Your task to perform on an android device: open sync settings in chrome Image 0: 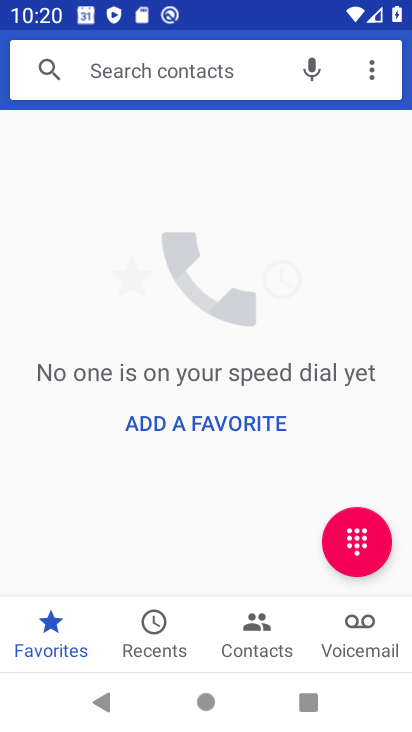
Step 0: press home button
Your task to perform on an android device: open sync settings in chrome Image 1: 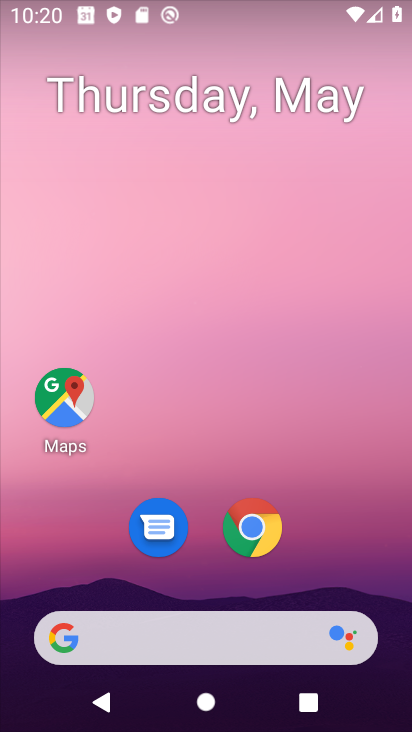
Step 1: click (251, 526)
Your task to perform on an android device: open sync settings in chrome Image 2: 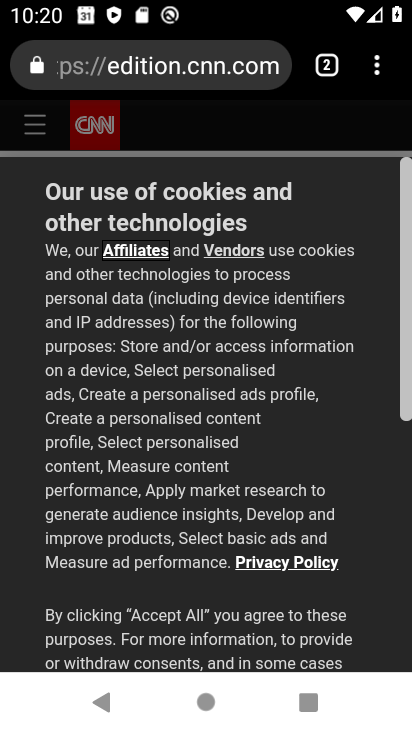
Step 2: click (380, 75)
Your task to perform on an android device: open sync settings in chrome Image 3: 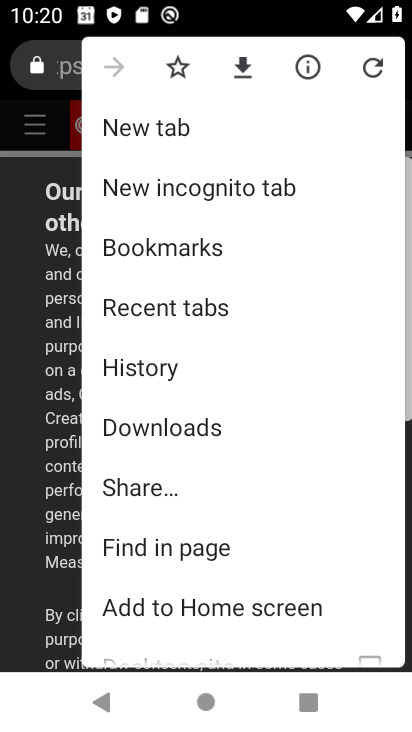
Step 3: drag from (183, 514) to (181, 308)
Your task to perform on an android device: open sync settings in chrome Image 4: 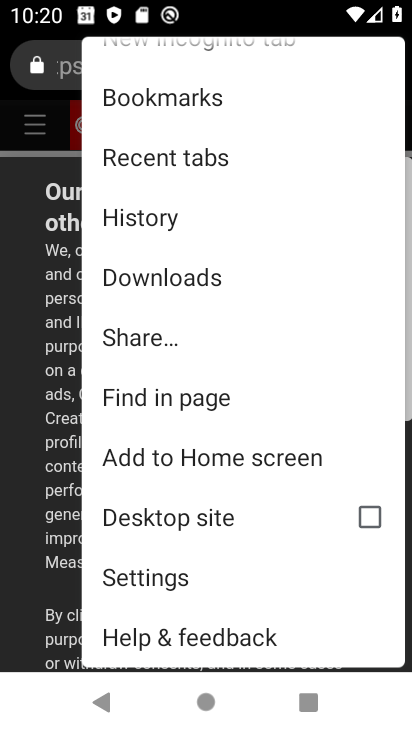
Step 4: click (163, 579)
Your task to perform on an android device: open sync settings in chrome Image 5: 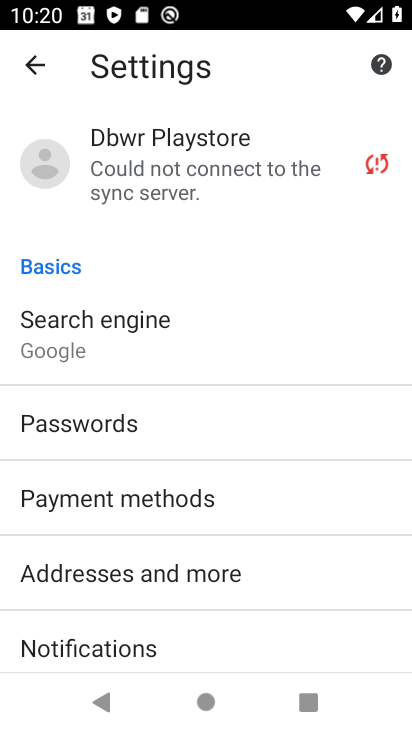
Step 5: drag from (184, 634) to (192, 157)
Your task to perform on an android device: open sync settings in chrome Image 6: 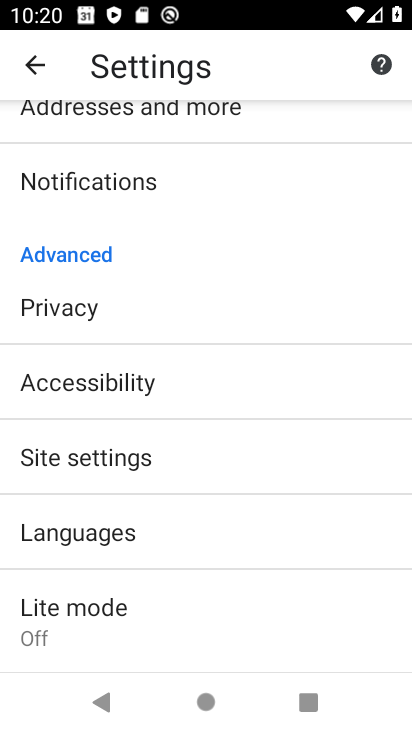
Step 6: drag from (165, 597) to (174, 186)
Your task to perform on an android device: open sync settings in chrome Image 7: 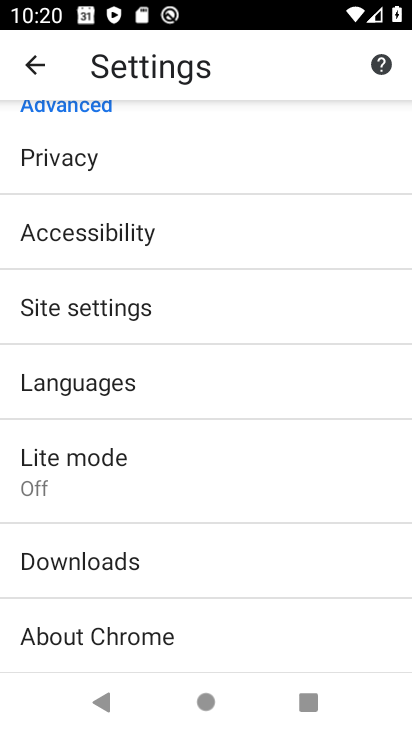
Step 7: click (94, 304)
Your task to perform on an android device: open sync settings in chrome Image 8: 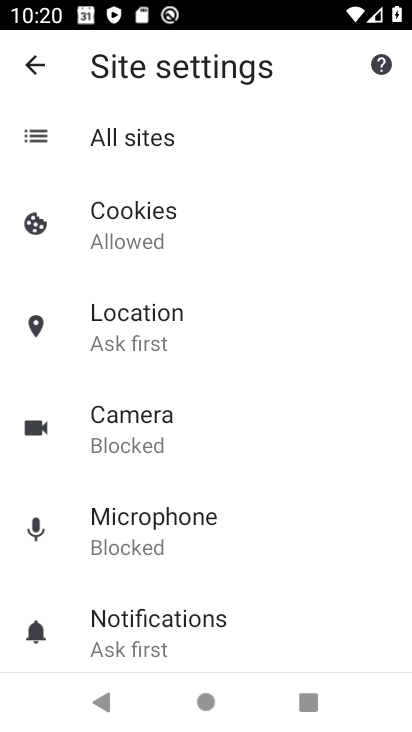
Step 8: drag from (173, 592) to (183, 175)
Your task to perform on an android device: open sync settings in chrome Image 9: 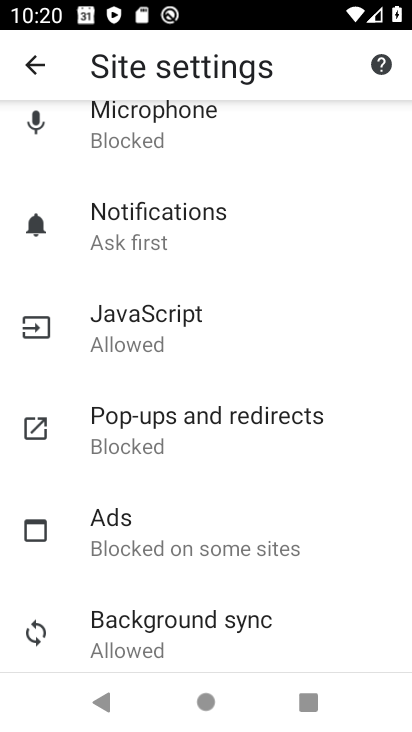
Step 9: click (186, 612)
Your task to perform on an android device: open sync settings in chrome Image 10: 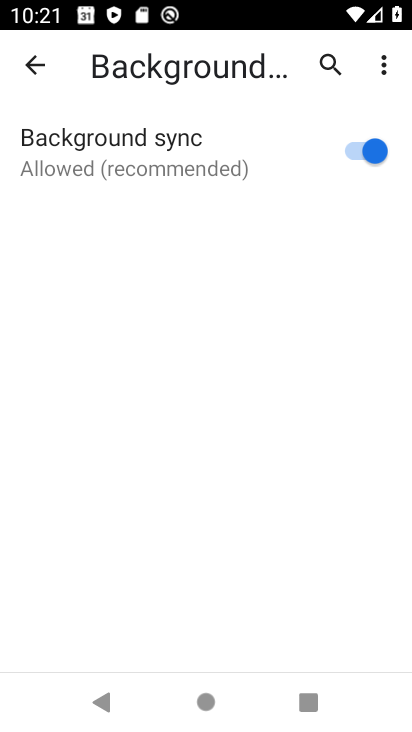
Step 10: task complete